Your task to perform on an android device: Open Google Chrome and click the shortcut for Amazon.com Image 0: 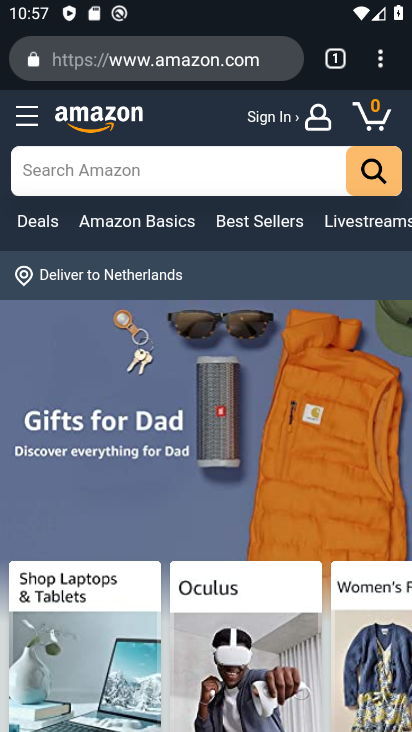
Step 0: task complete